Your task to perform on an android device: Go to battery settings Image 0: 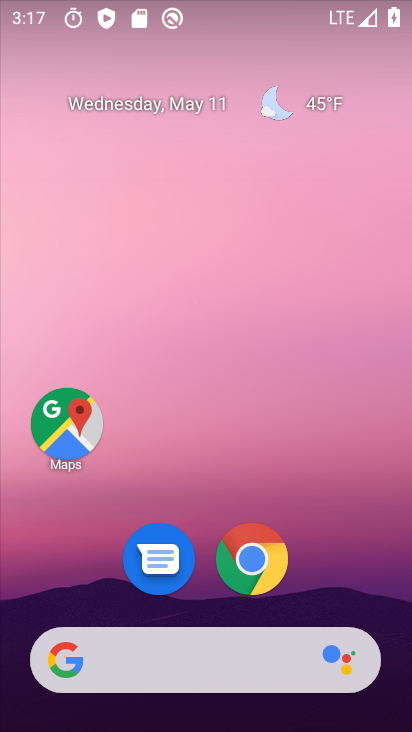
Step 0: drag from (338, 492) to (201, 116)
Your task to perform on an android device: Go to battery settings Image 1: 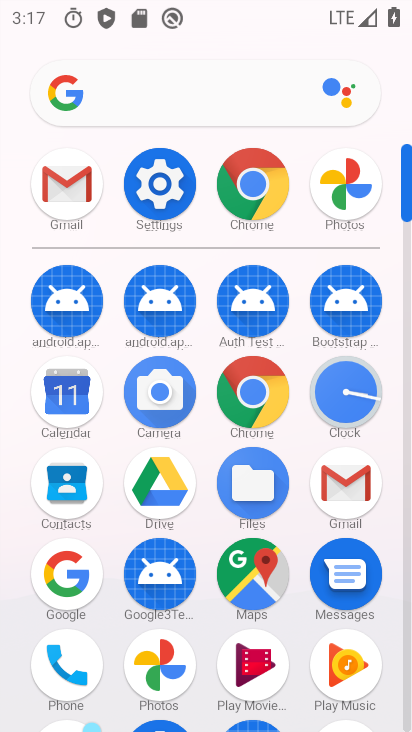
Step 1: click (165, 179)
Your task to perform on an android device: Go to battery settings Image 2: 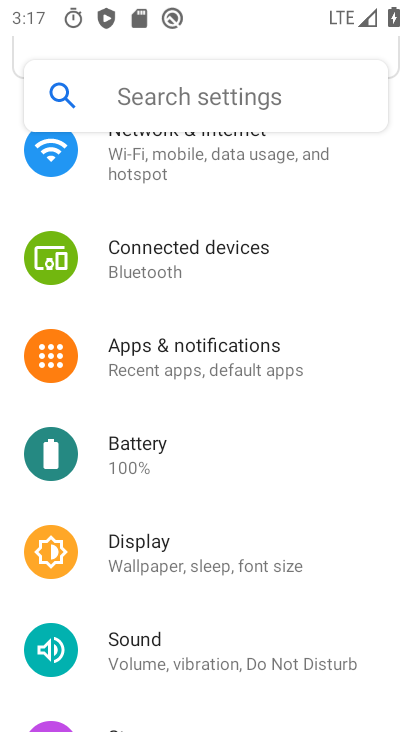
Step 2: drag from (237, 584) to (225, 377)
Your task to perform on an android device: Go to battery settings Image 3: 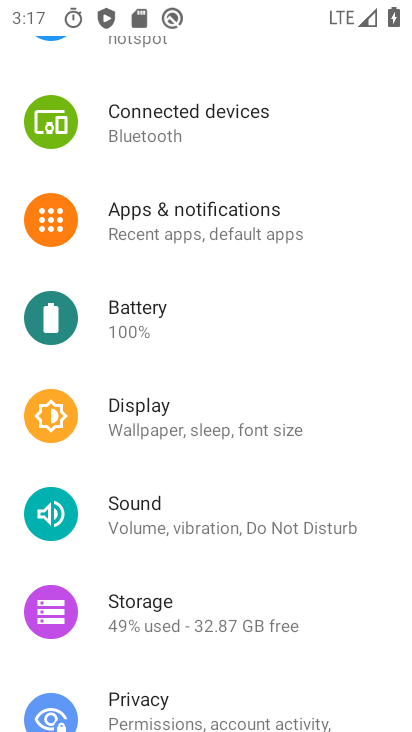
Step 3: click (210, 336)
Your task to perform on an android device: Go to battery settings Image 4: 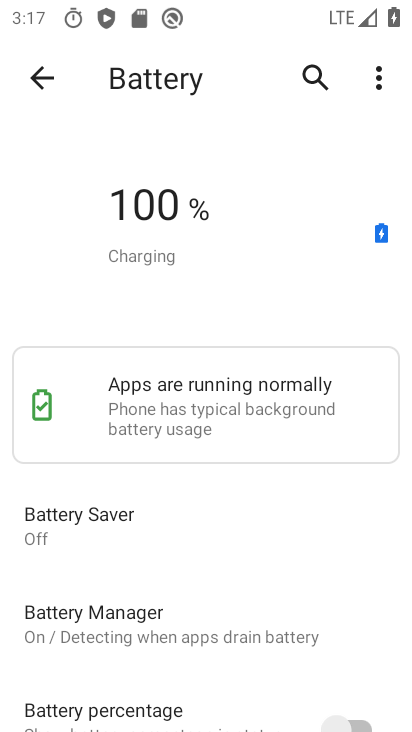
Step 4: task complete